Your task to perform on an android device: Open eBay Image 0: 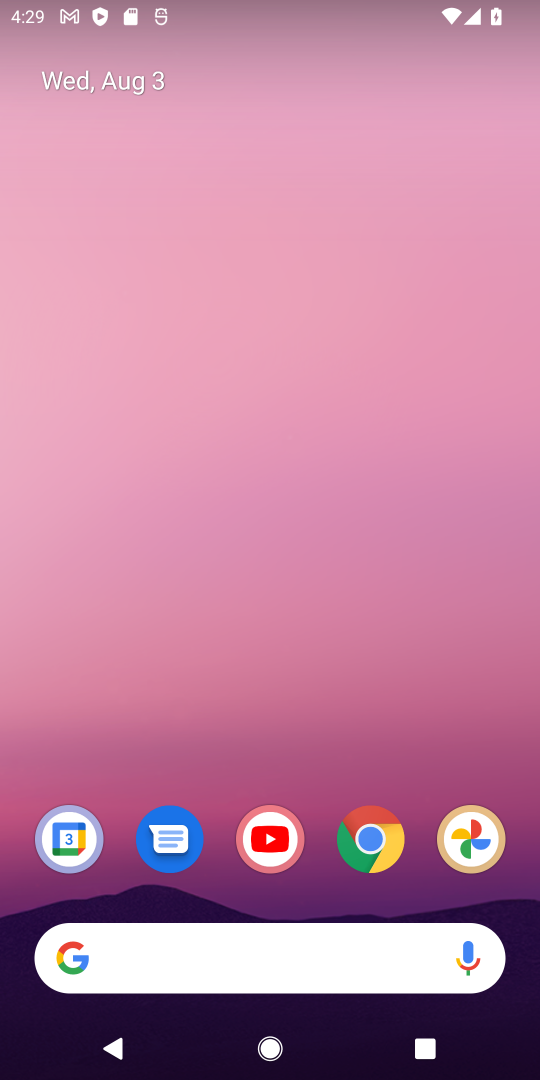
Step 0: click (383, 833)
Your task to perform on an android device: Open eBay Image 1: 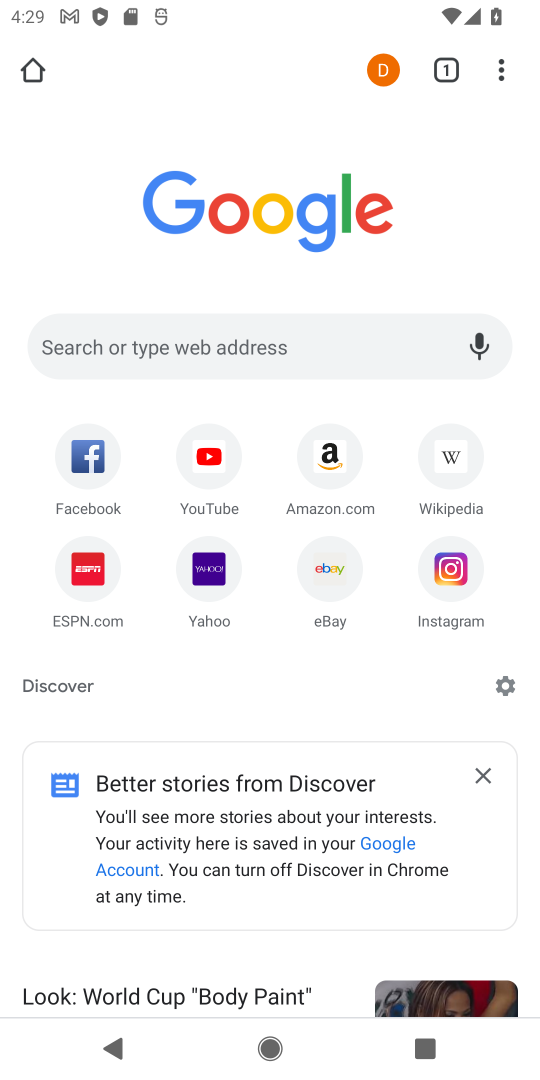
Step 1: click (336, 567)
Your task to perform on an android device: Open eBay Image 2: 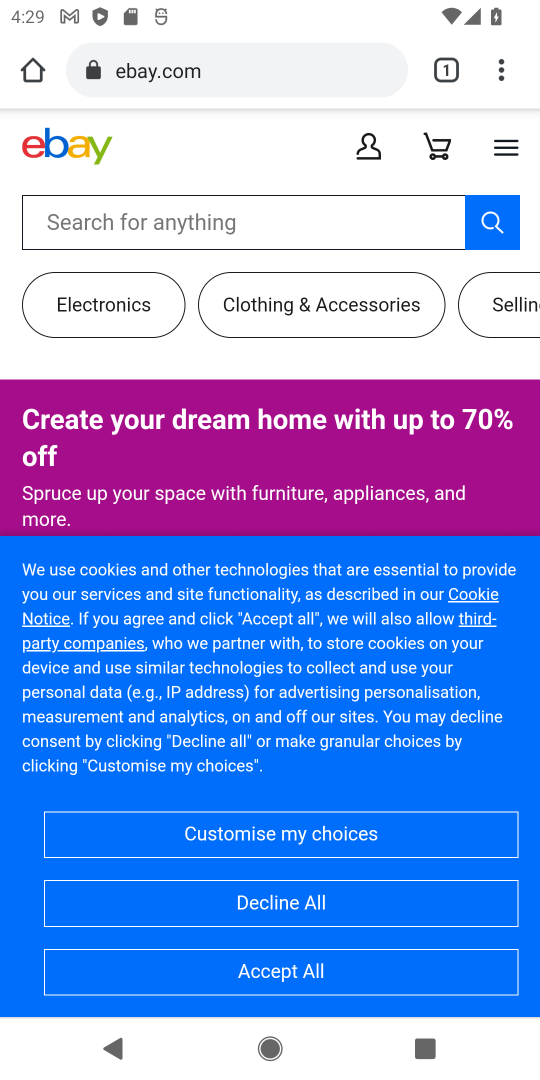
Step 2: task complete